Your task to perform on an android device: Open the phone app and click the voicemail tab. Image 0: 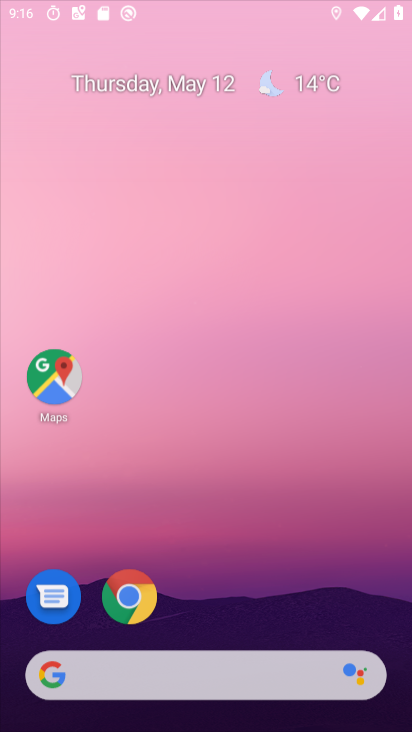
Step 0: click (212, 79)
Your task to perform on an android device: Open the phone app and click the voicemail tab. Image 1: 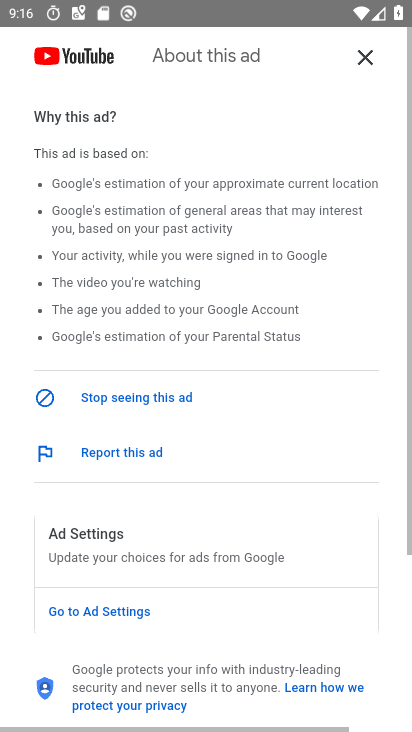
Step 1: click (363, 56)
Your task to perform on an android device: Open the phone app and click the voicemail tab. Image 2: 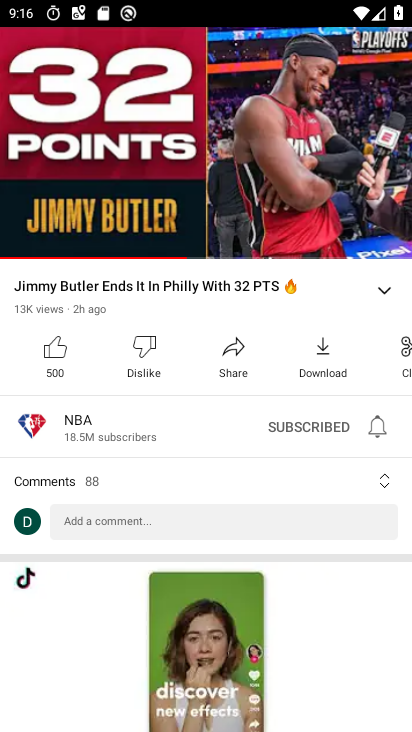
Step 2: press back button
Your task to perform on an android device: Open the phone app and click the voicemail tab. Image 3: 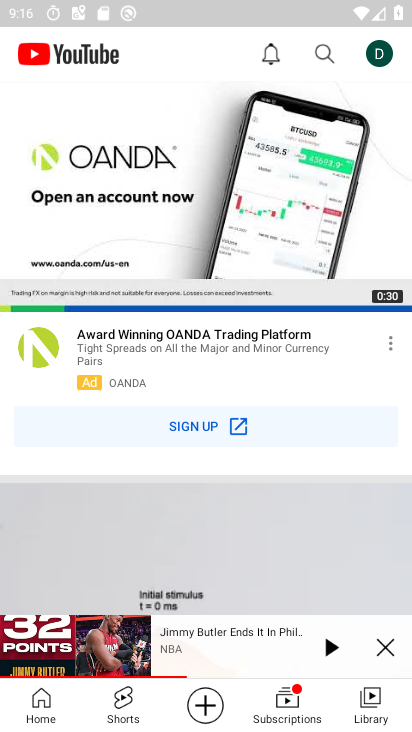
Step 3: click (381, 637)
Your task to perform on an android device: Open the phone app and click the voicemail tab. Image 4: 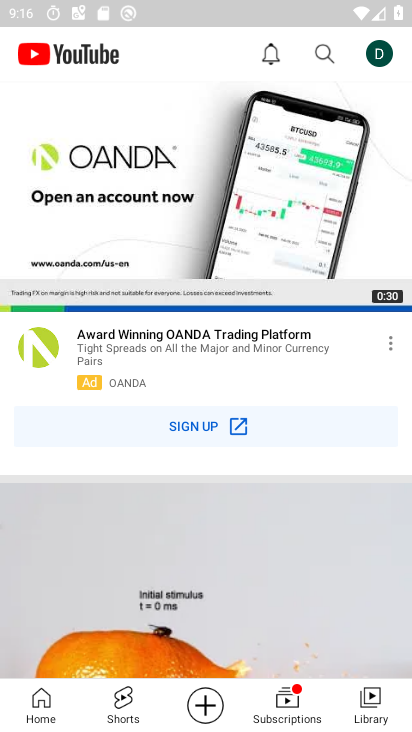
Step 4: click (382, 644)
Your task to perform on an android device: Open the phone app and click the voicemail tab. Image 5: 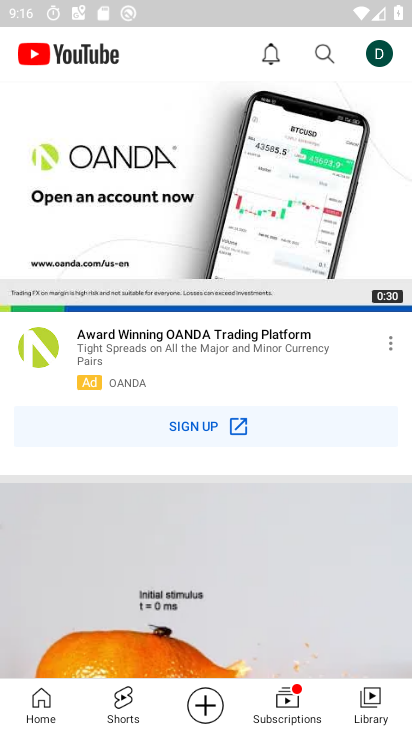
Step 5: click (382, 644)
Your task to perform on an android device: Open the phone app and click the voicemail tab. Image 6: 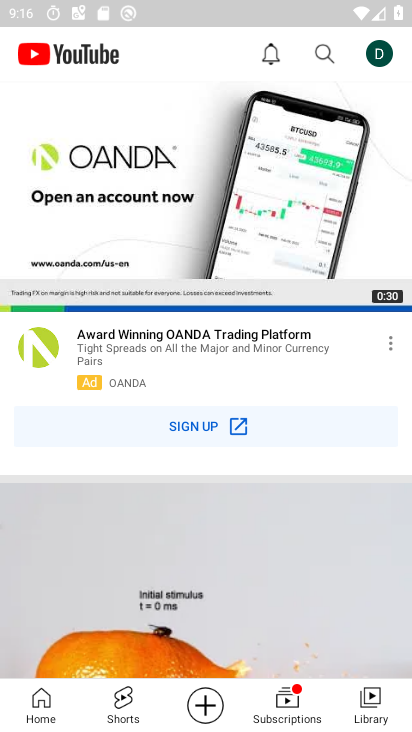
Step 6: drag from (277, 531) to (216, 173)
Your task to perform on an android device: Open the phone app and click the voicemail tab. Image 7: 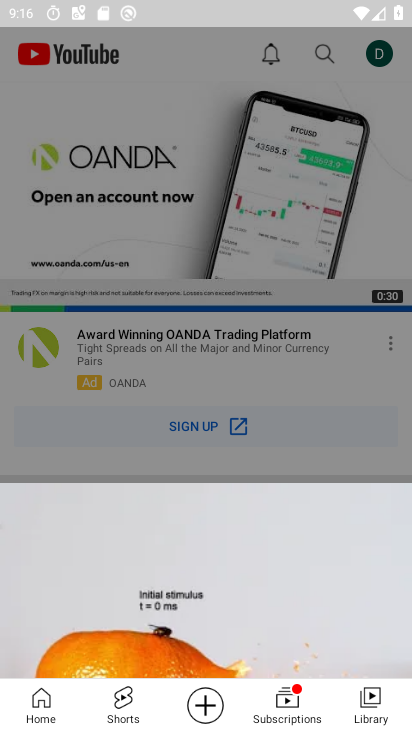
Step 7: drag from (287, 349) to (263, 7)
Your task to perform on an android device: Open the phone app and click the voicemail tab. Image 8: 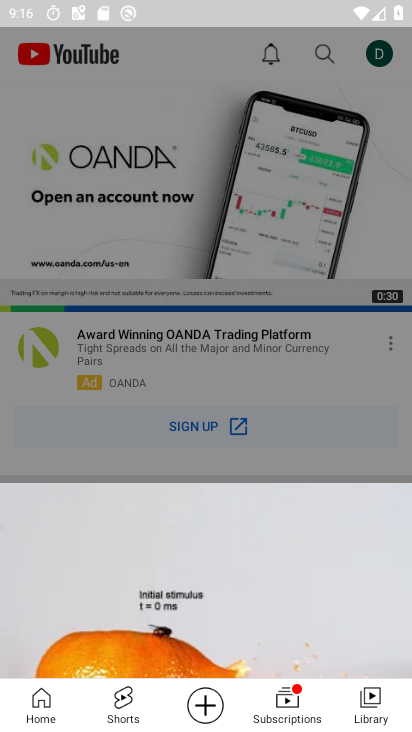
Step 8: drag from (234, 345) to (172, 12)
Your task to perform on an android device: Open the phone app and click the voicemail tab. Image 9: 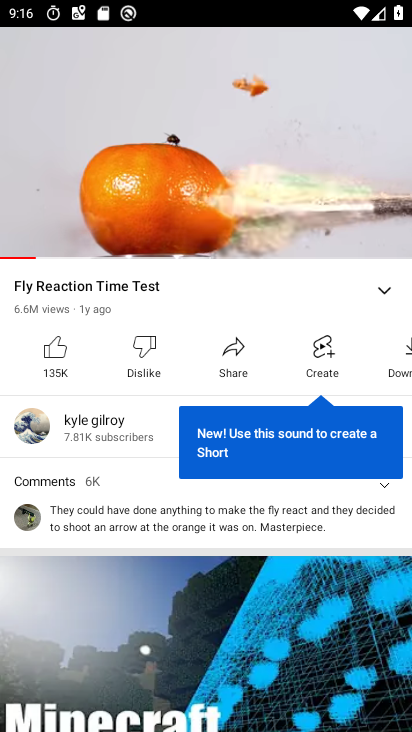
Step 9: press home button
Your task to perform on an android device: Open the phone app and click the voicemail tab. Image 10: 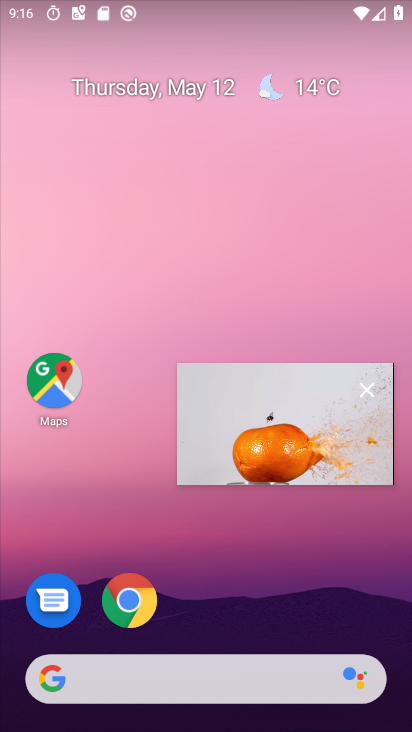
Step 10: click (370, 390)
Your task to perform on an android device: Open the phone app and click the voicemail tab. Image 11: 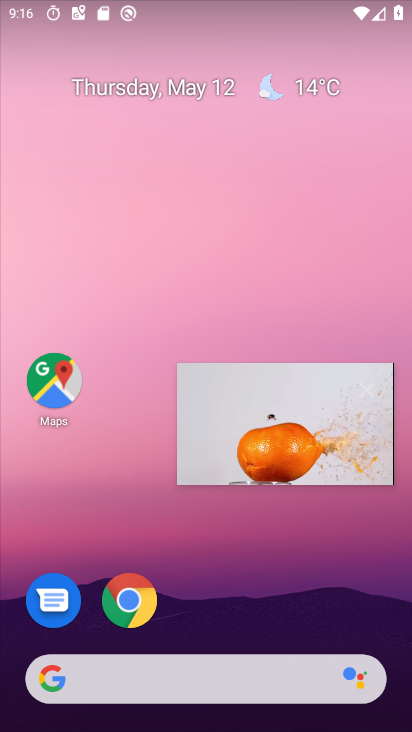
Step 11: click (370, 390)
Your task to perform on an android device: Open the phone app and click the voicemail tab. Image 12: 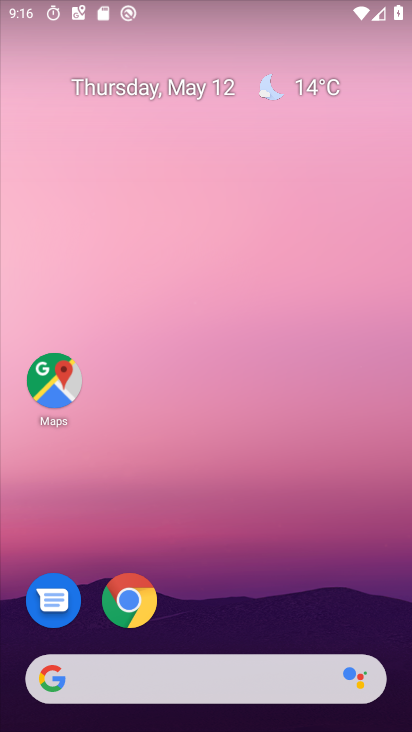
Step 12: drag from (332, 607) to (119, 120)
Your task to perform on an android device: Open the phone app and click the voicemail tab. Image 13: 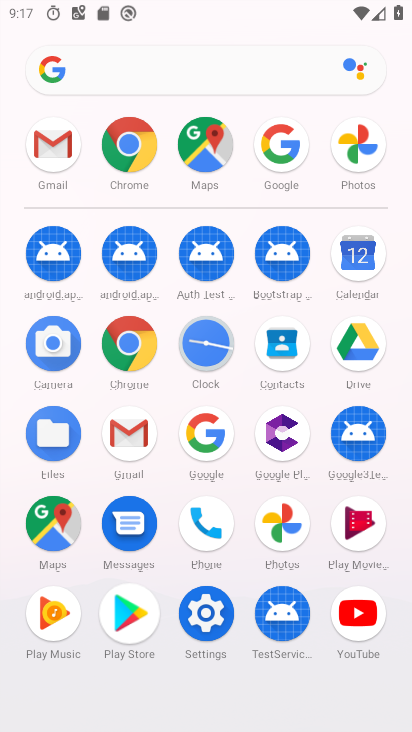
Step 13: click (203, 530)
Your task to perform on an android device: Open the phone app and click the voicemail tab. Image 14: 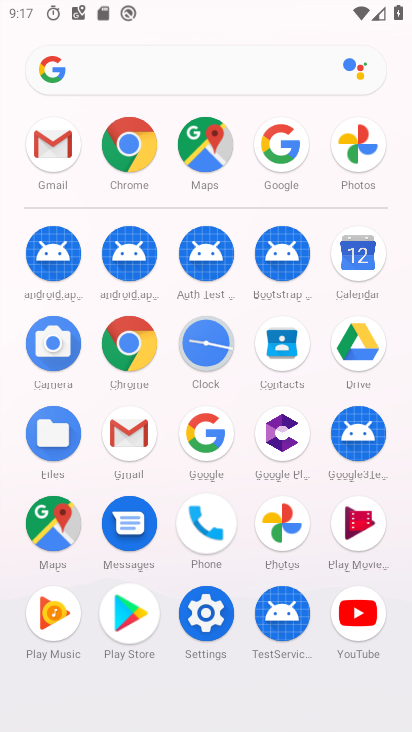
Step 14: click (205, 527)
Your task to perform on an android device: Open the phone app and click the voicemail tab. Image 15: 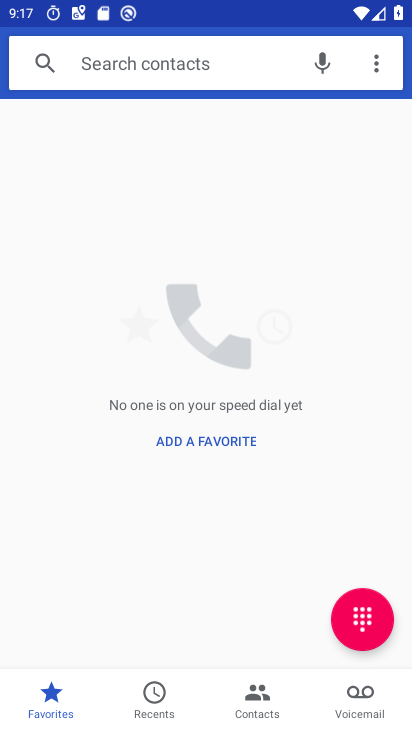
Step 15: click (351, 700)
Your task to perform on an android device: Open the phone app and click the voicemail tab. Image 16: 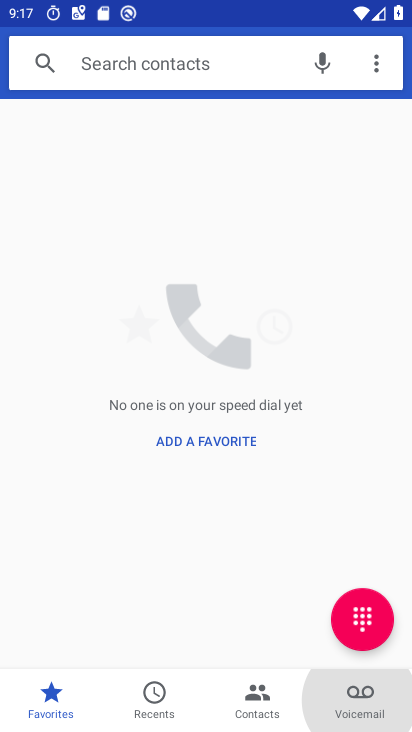
Step 16: click (351, 700)
Your task to perform on an android device: Open the phone app and click the voicemail tab. Image 17: 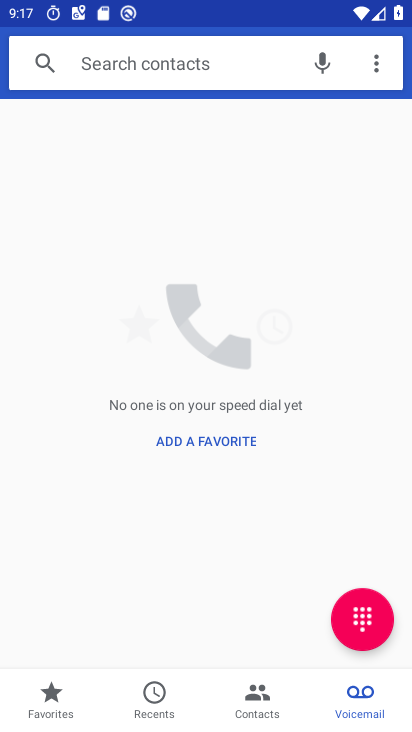
Step 17: click (351, 700)
Your task to perform on an android device: Open the phone app and click the voicemail tab. Image 18: 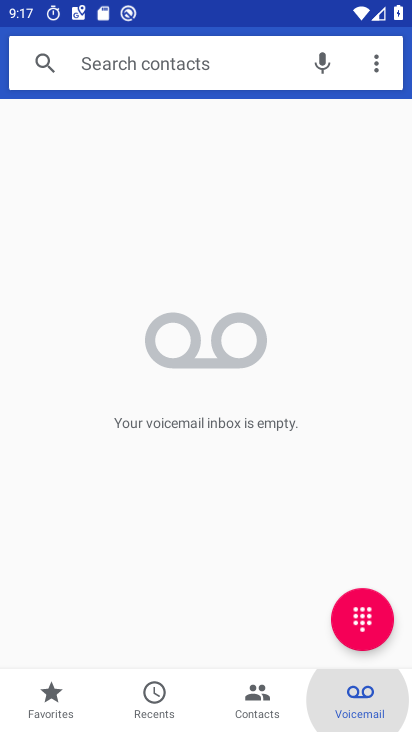
Step 18: click (351, 700)
Your task to perform on an android device: Open the phone app and click the voicemail tab. Image 19: 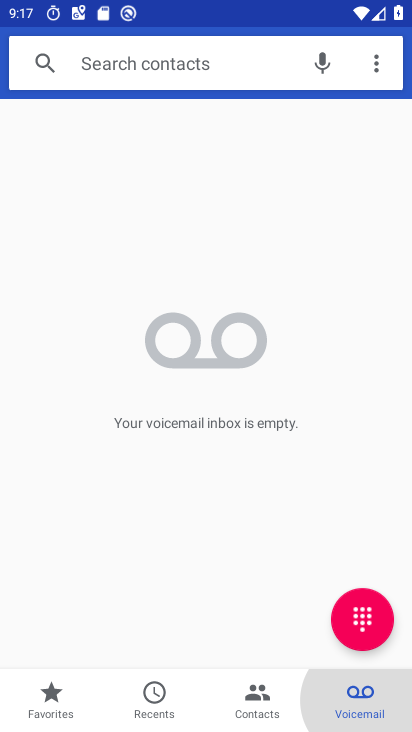
Step 19: click (351, 700)
Your task to perform on an android device: Open the phone app and click the voicemail tab. Image 20: 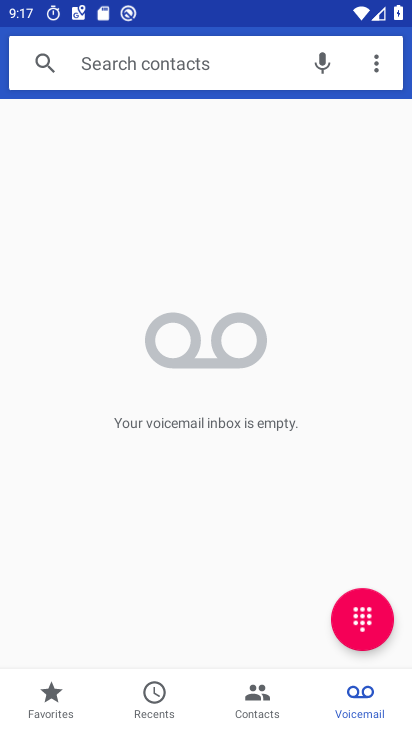
Step 20: click (360, 707)
Your task to perform on an android device: Open the phone app and click the voicemail tab. Image 21: 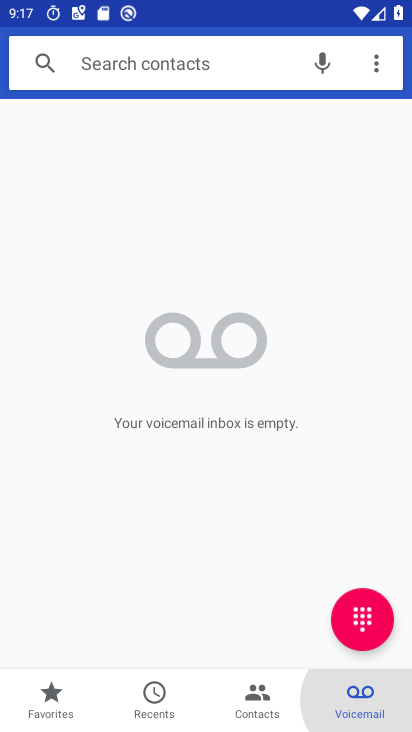
Step 21: click (360, 707)
Your task to perform on an android device: Open the phone app and click the voicemail tab. Image 22: 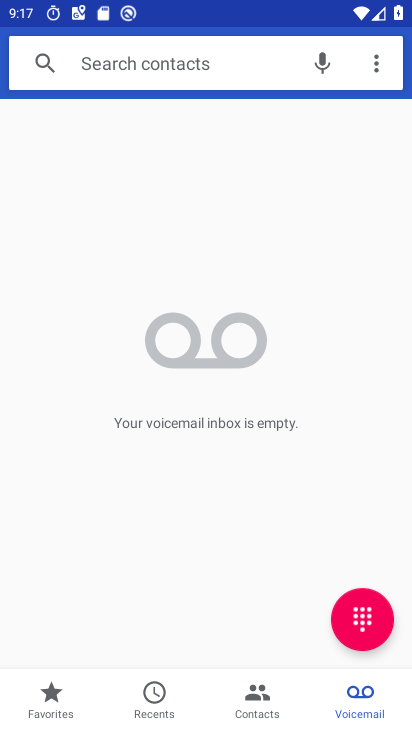
Step 22: task complete